Your task to perform on an android device: create a new album in the google photos Image 0: 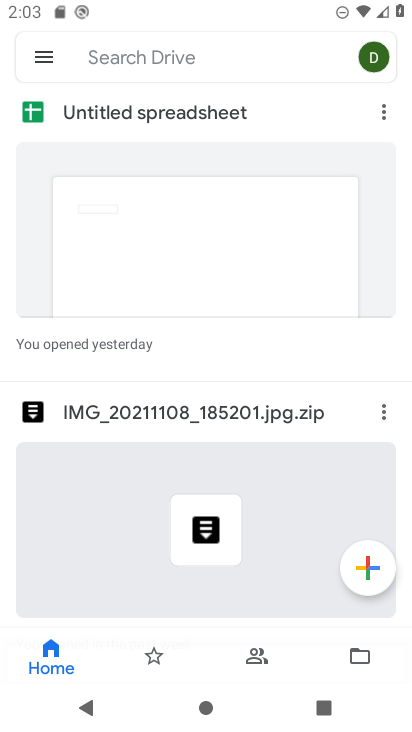
Step 0: press home button
Your task to perform on an android device: create a new album in the google photos Image 1: 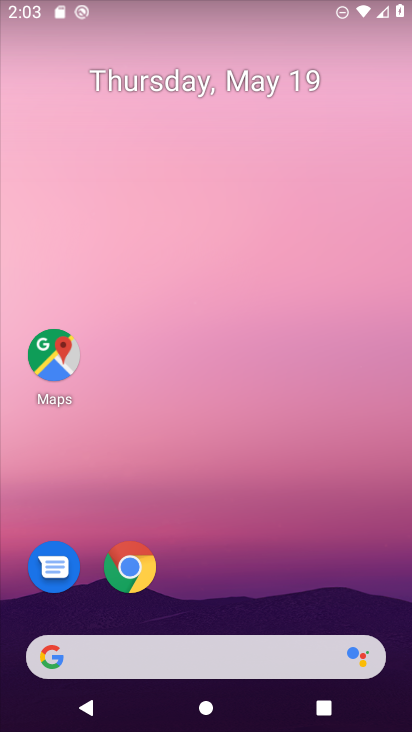
Step 1: drag from (237, 529) to (232, 56)
Your task to perform on an android device: create a new album in the google photos Image 2: 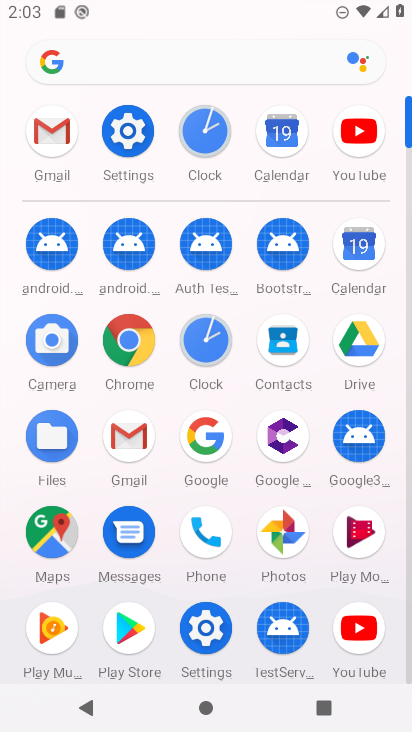
Step 2: click (277, 526)
Your task to perform on an android device: create a new album in the google photos Image 3: 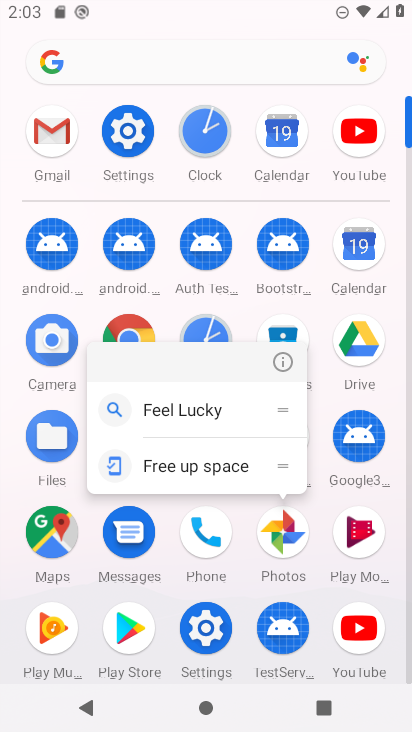
Step 3: click (279, 531)
Your task to perform on an android device: create a new album in the google photos Image 4: 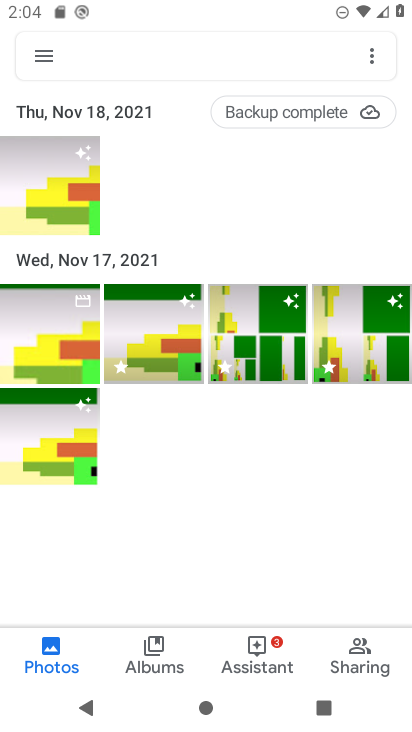
Step 4: click (151, 651)
Your task to perform on an android device: create a new album in the google photos Image 5: 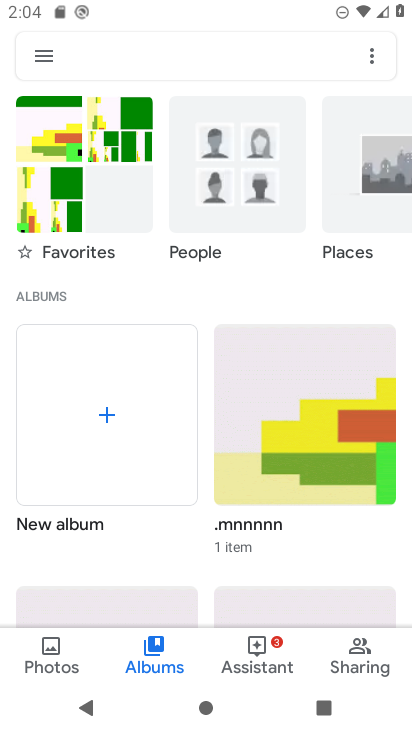
Step 5: click (107, 410)
Your task to perform on an android device: create a new album in the google photos Image 6: 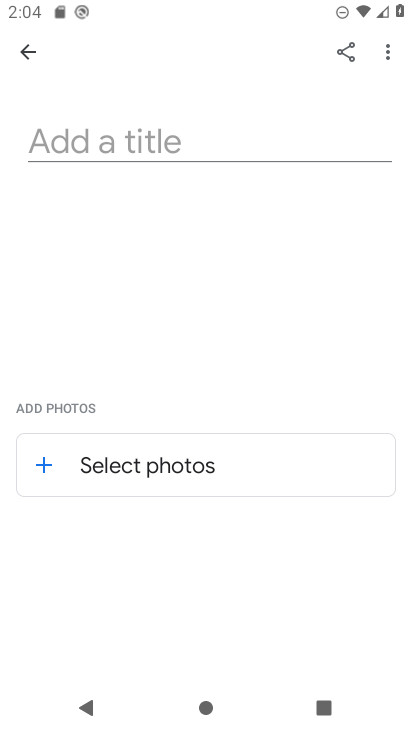
Step 6: click (200, 136)
Your task to perform on an android device: create a new album in the google photos Image 7: 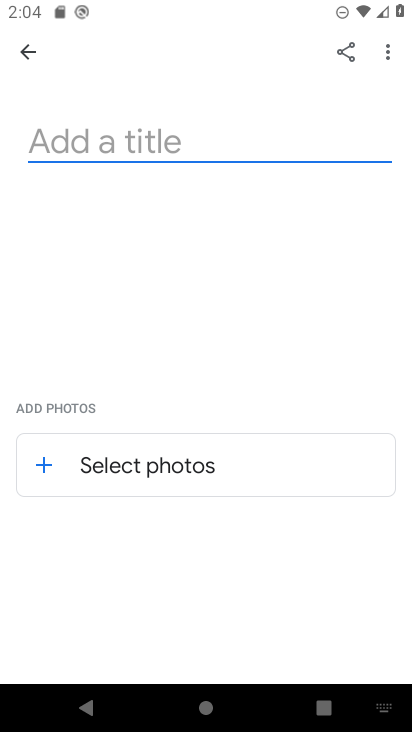
Step 7: type "Gyanvapi Temple Varanasi Bharat"
Your task to perform on an android device: create a new album in the google photos Image 8: 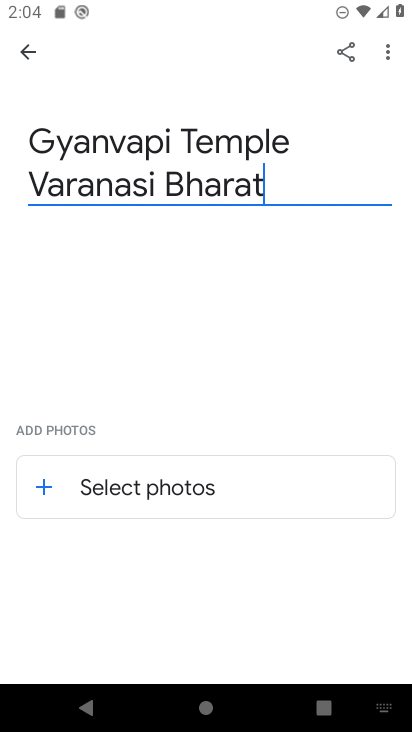
Step 8: click (174, 485)
Your task to perform on an android device: create a new album in the google photos Image 9: 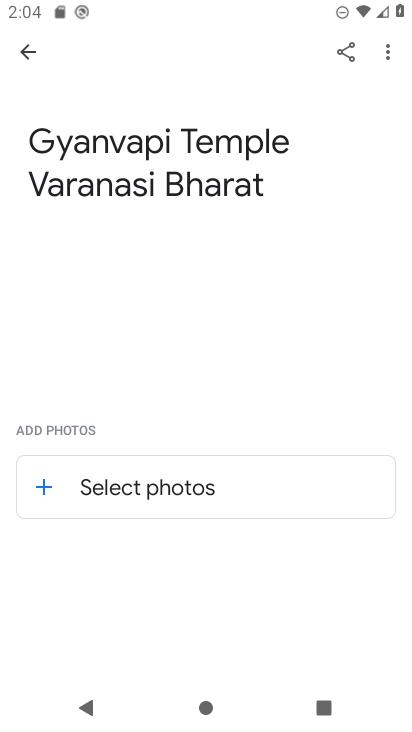
Step 9: click (40, 477)
Your task to perform on an android device: create a new album in the google photos Image 10: 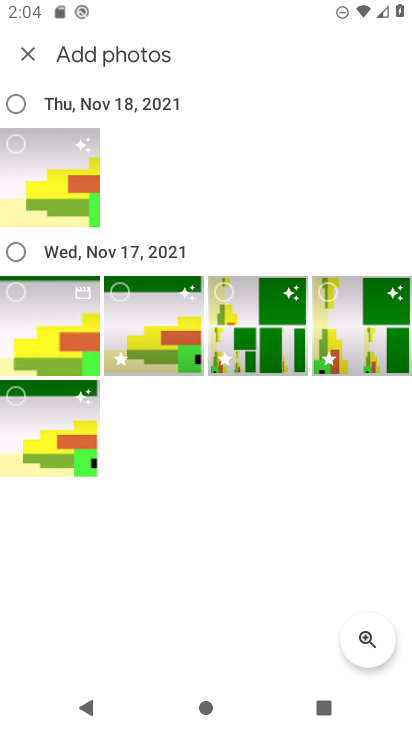
Step 10: click (22, 398)
Your task to perform on an android device: create a new album in the google photos Image 11: 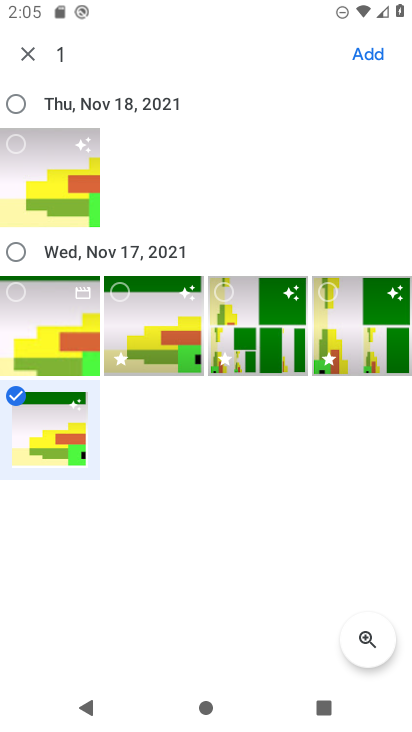
Step 11: click (358, 46)
Your task to perform on an android device: create a new album in the google photos Image 12: 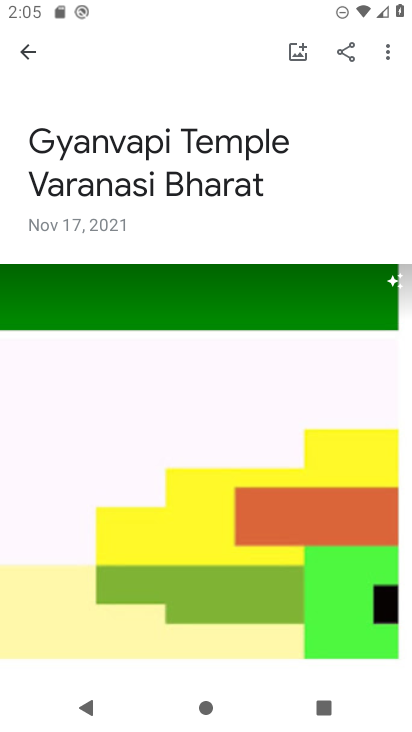
Step 12: task complete